Your task to perform on an android device: refresh tabs in the chrome app Image 0: 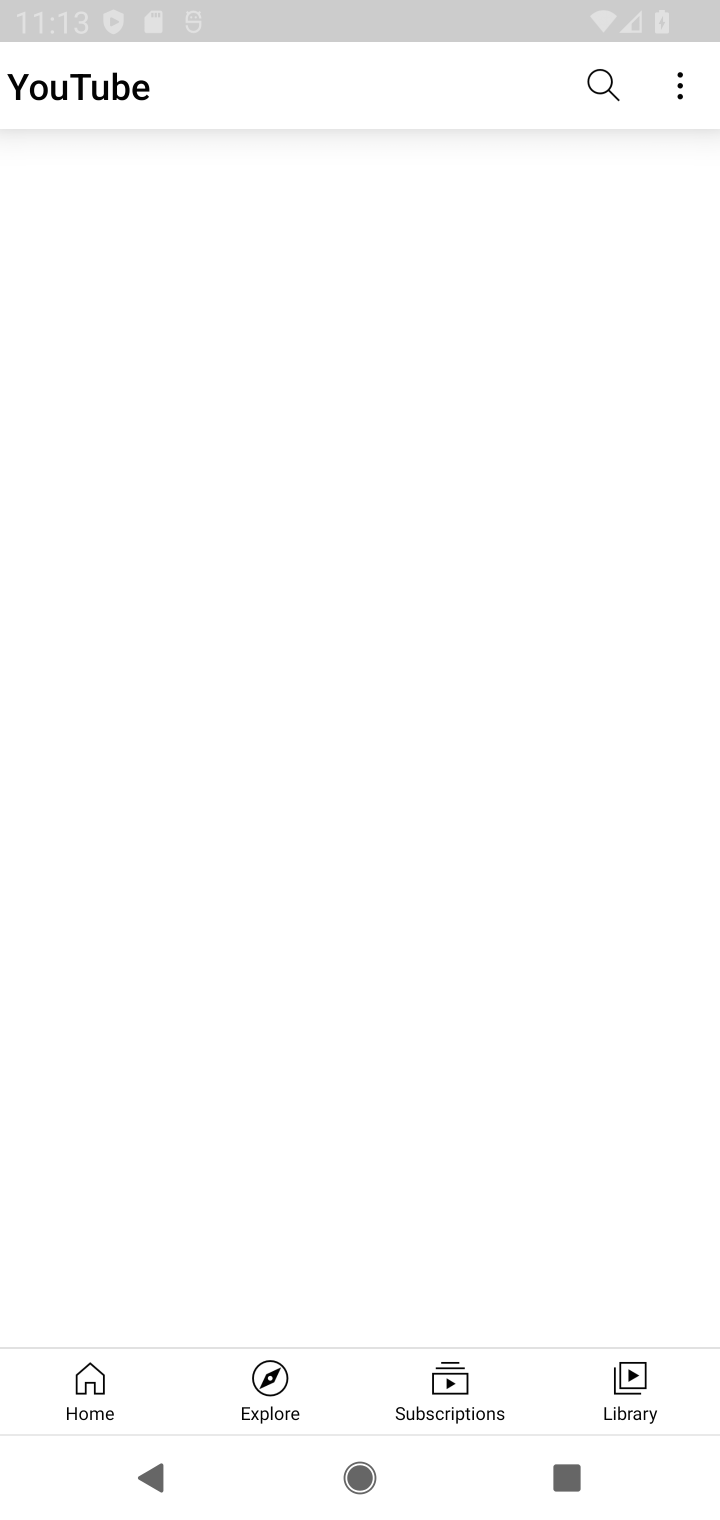
Step 0: press home button
Your task to perform on an android device: refresh tabs in the chrome app Image 1: 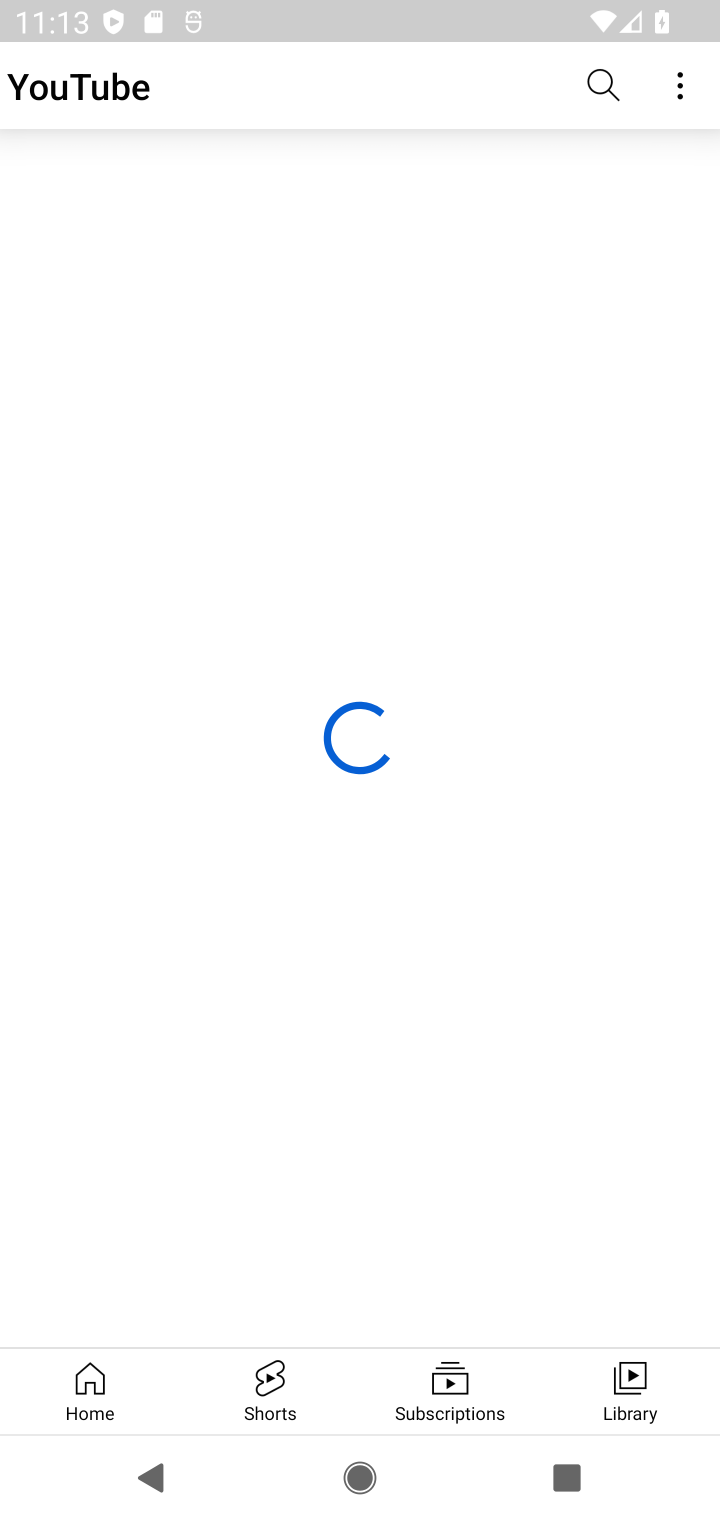
Step 1: press home button
Your task to perform on an android device: refresh tabs in the chrome app Image 2: 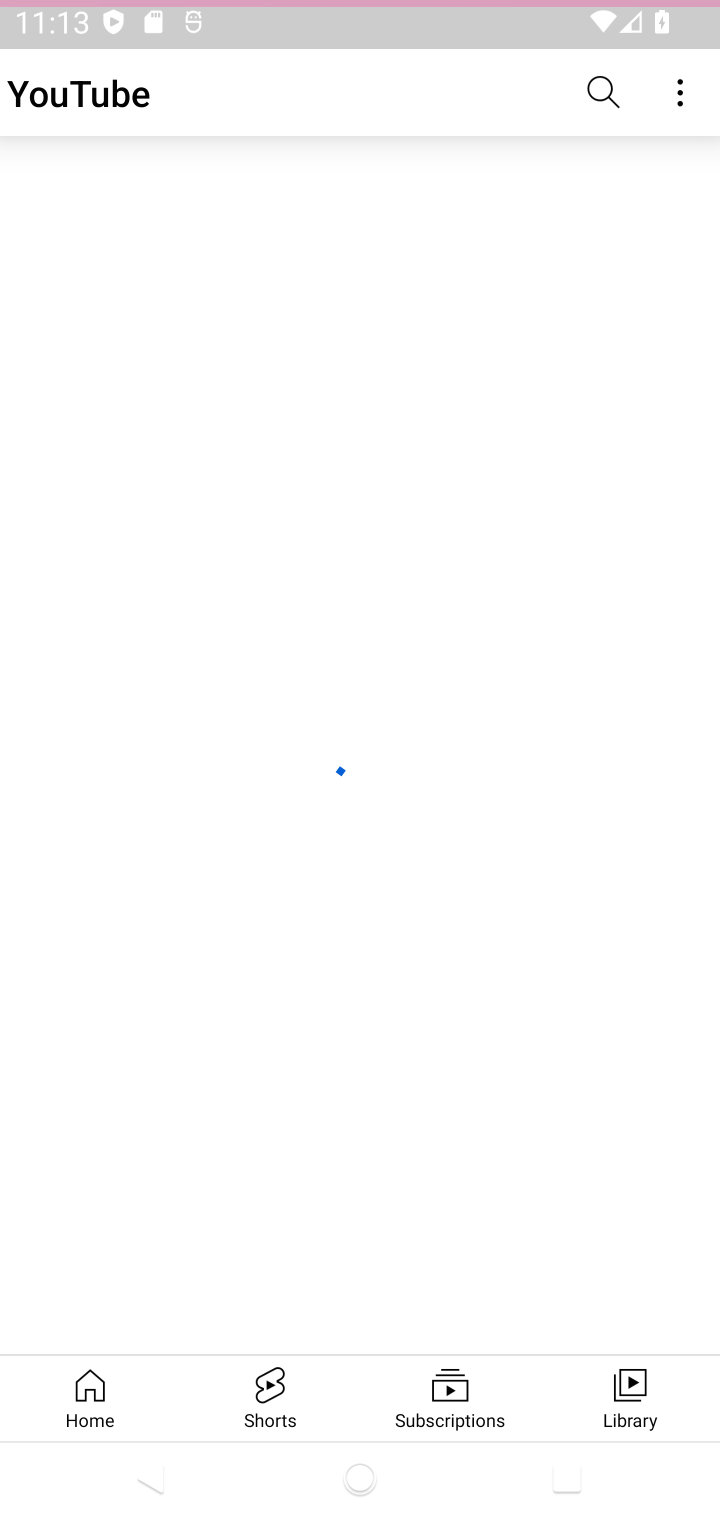
Step 2: press home button
Your task to perform on an android device: refresh tabs in the chrome app Image 3: 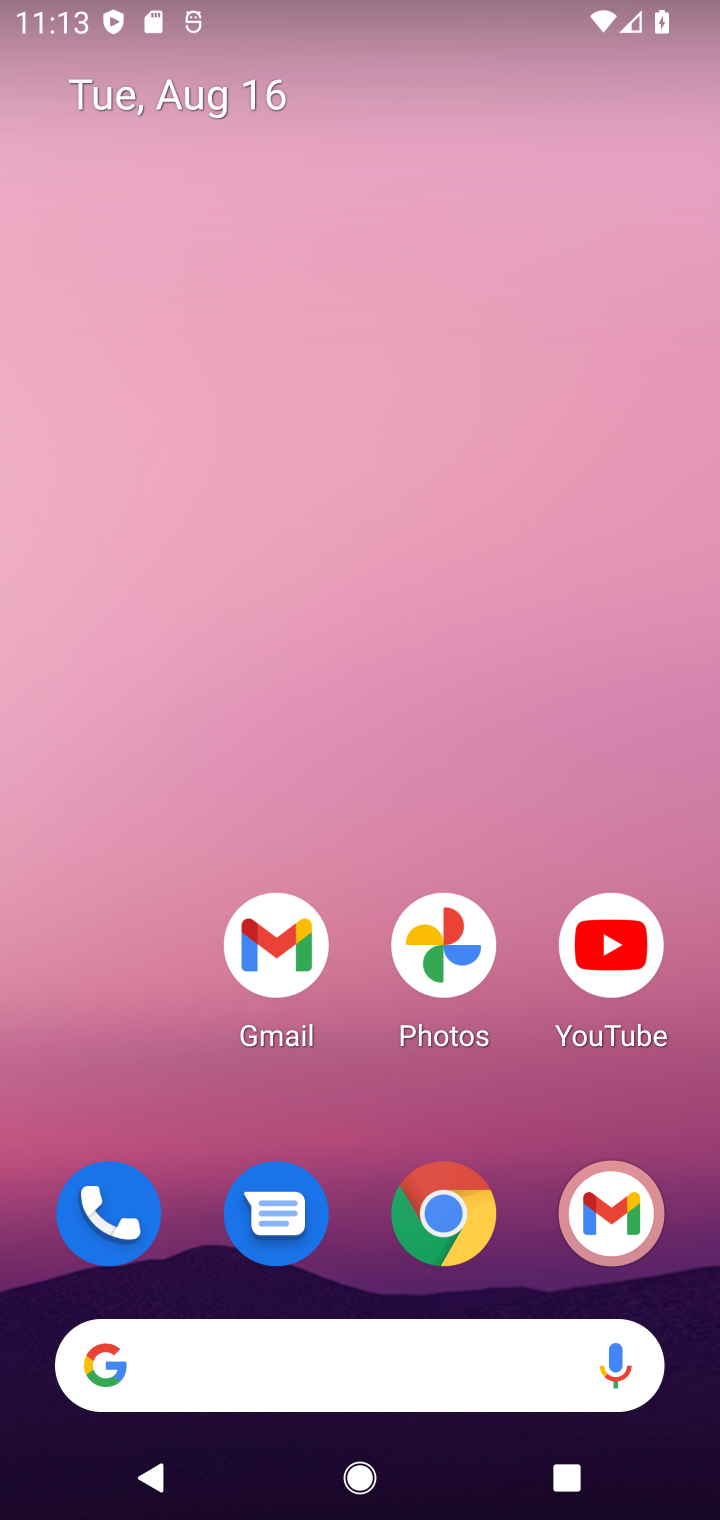
Step 3: drag from (336, 1075) to (532, 250)
Your task to perform on an android device: refresh tabs in the chrome app Image 4: 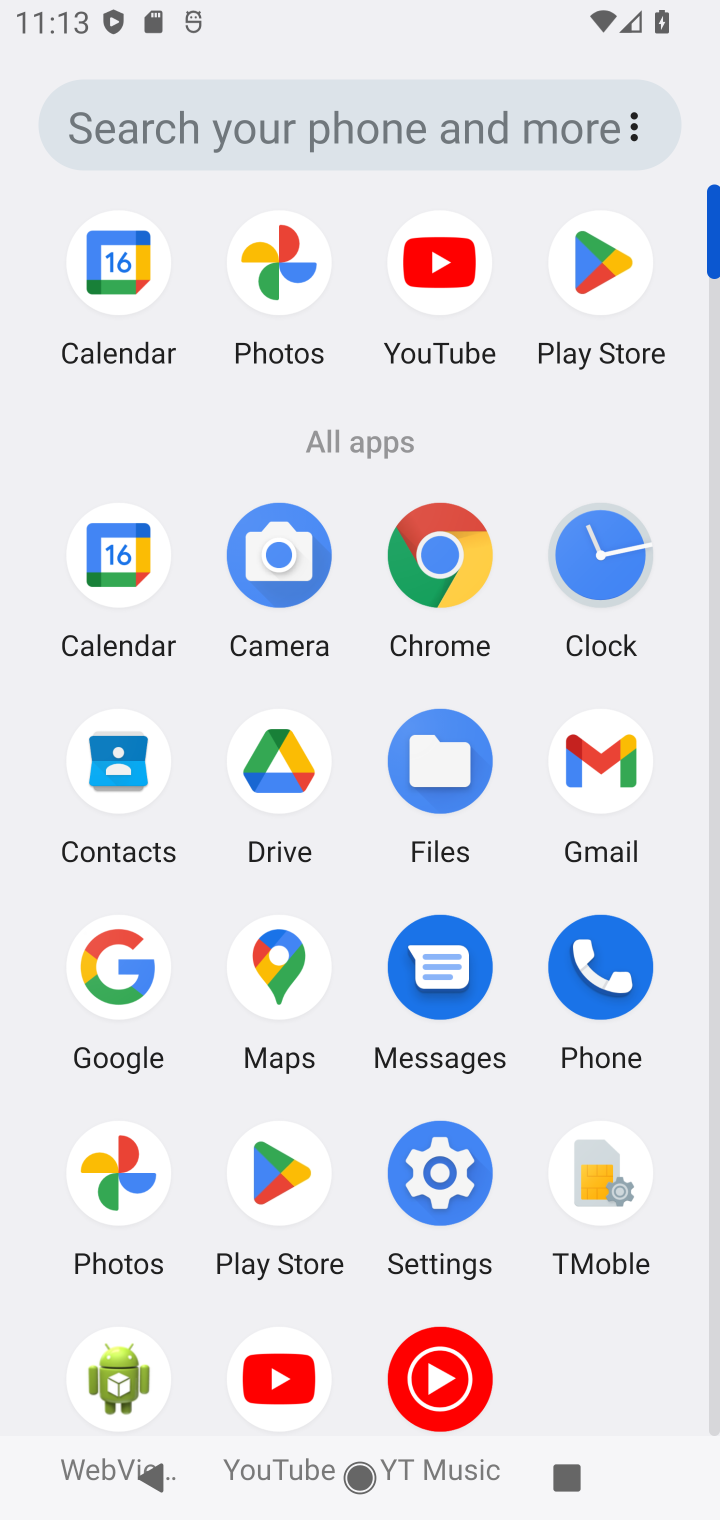
Step 4: click (431, 573)
Your task to perform on an android device: refresh tabs in the chrome app Image 5: 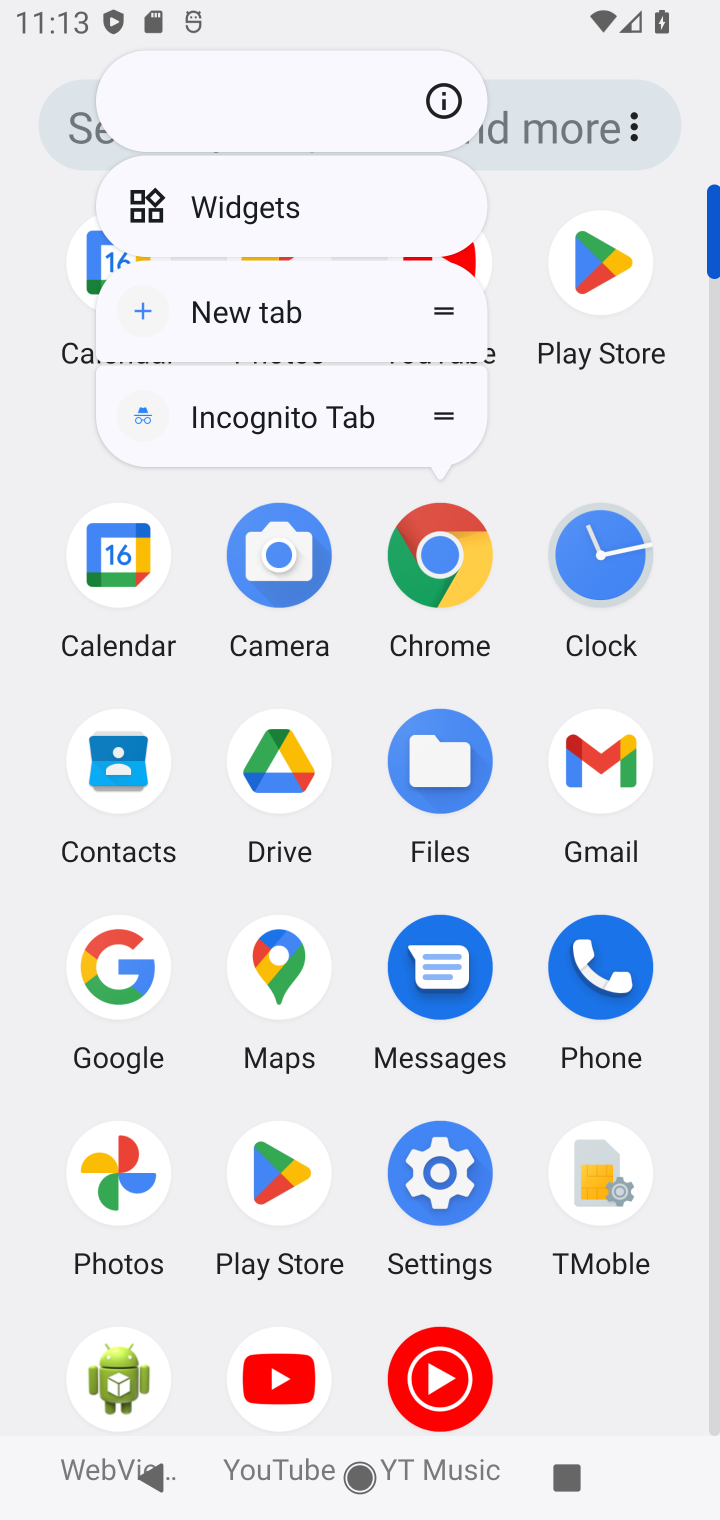
Step 5: click (431, 566)
Your task to perform on an android device: refresh tabs in the chrome app Image 6: 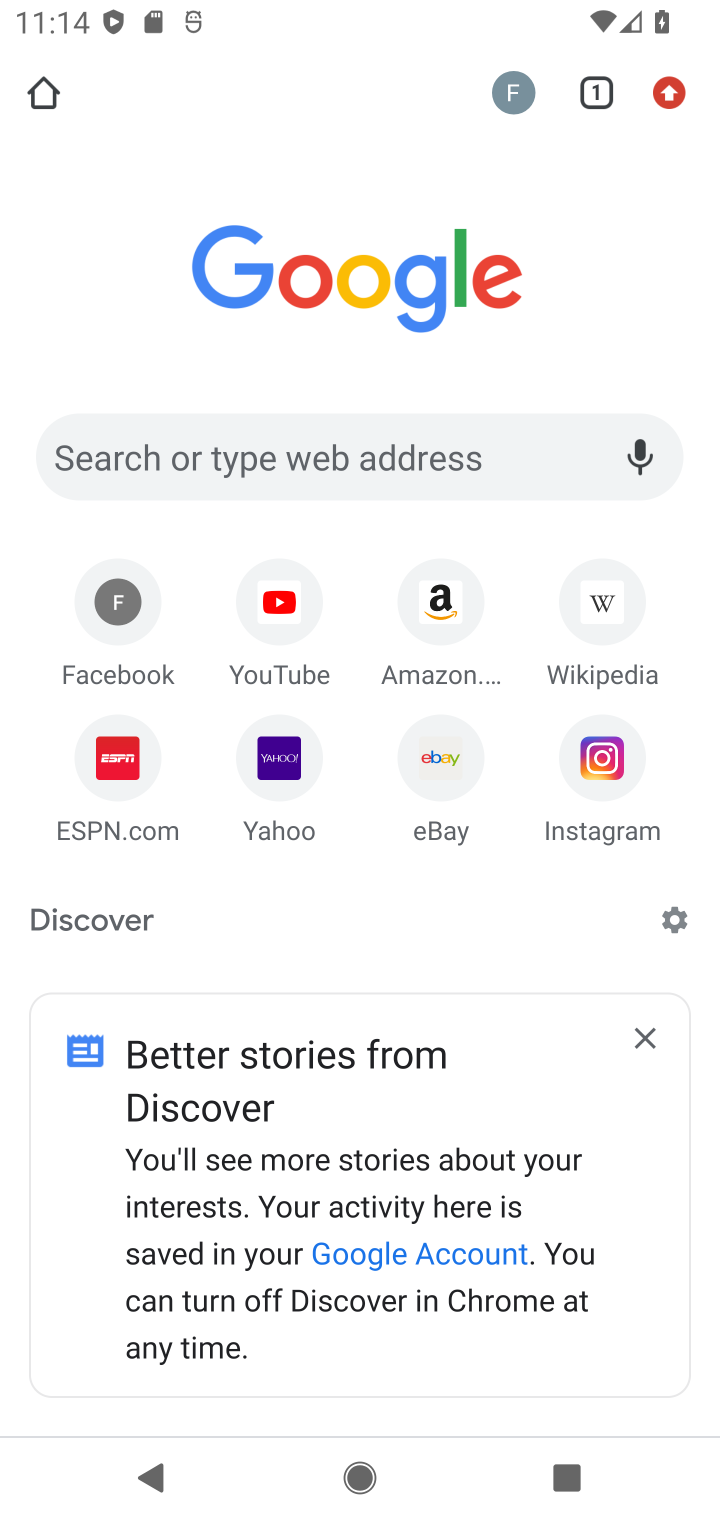
Step 6: click (696, 81)
Your task to perform on an android device: refresh tabs in the chrome app Image 7: 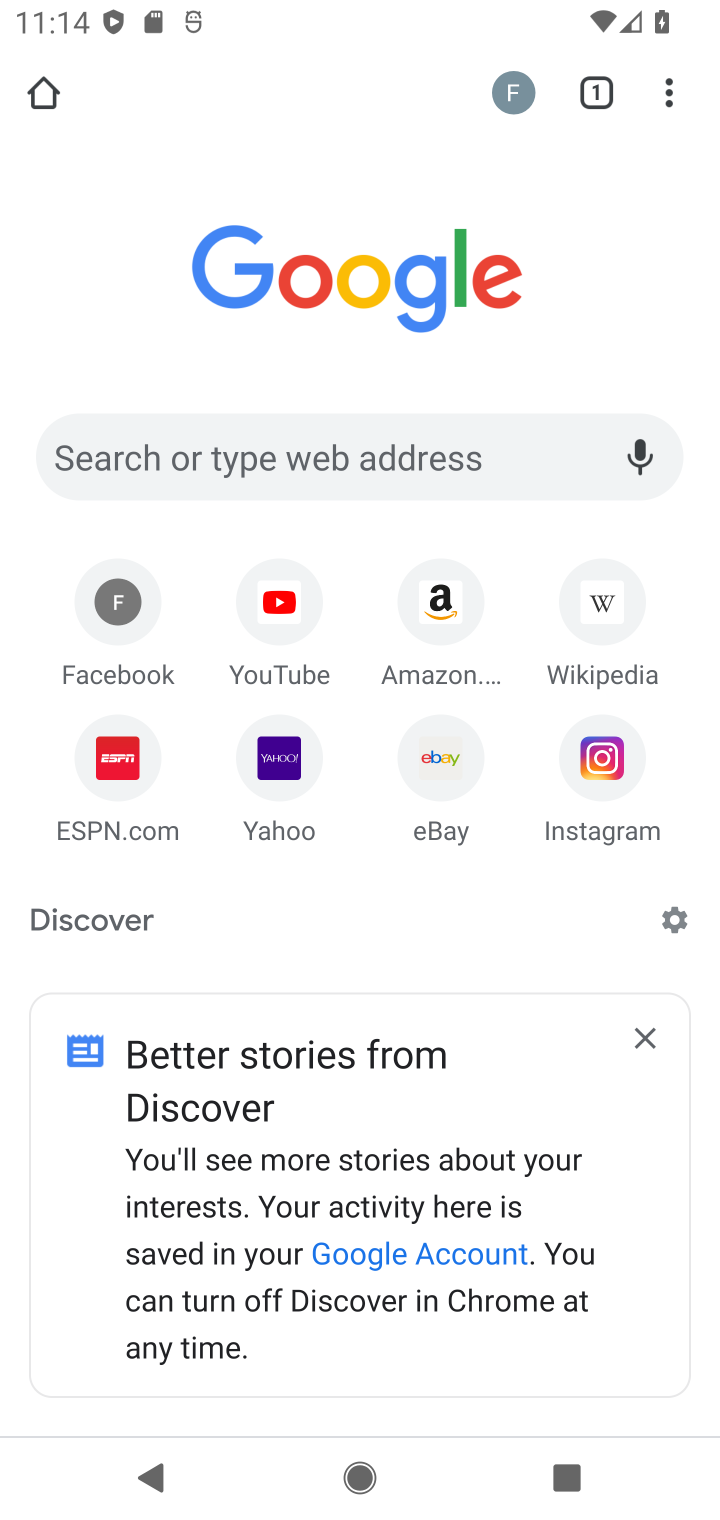
Step 7: click (672, 85)
Your task to perform on an android device: refresh tabs in the chrome app Image 8: 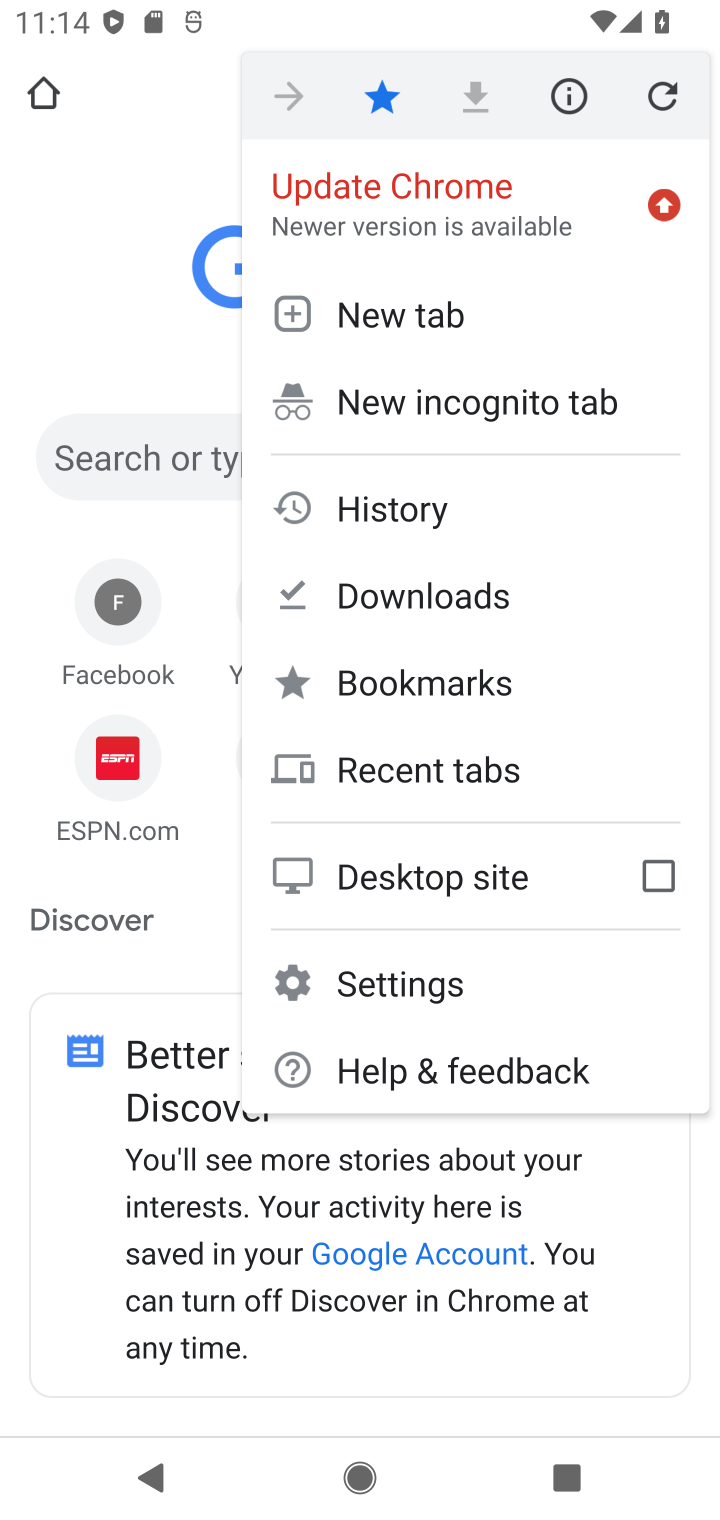
Step 8: click (672, 85)
Your task to perform on an android device: refresh tabs in the chrome app Image 9: 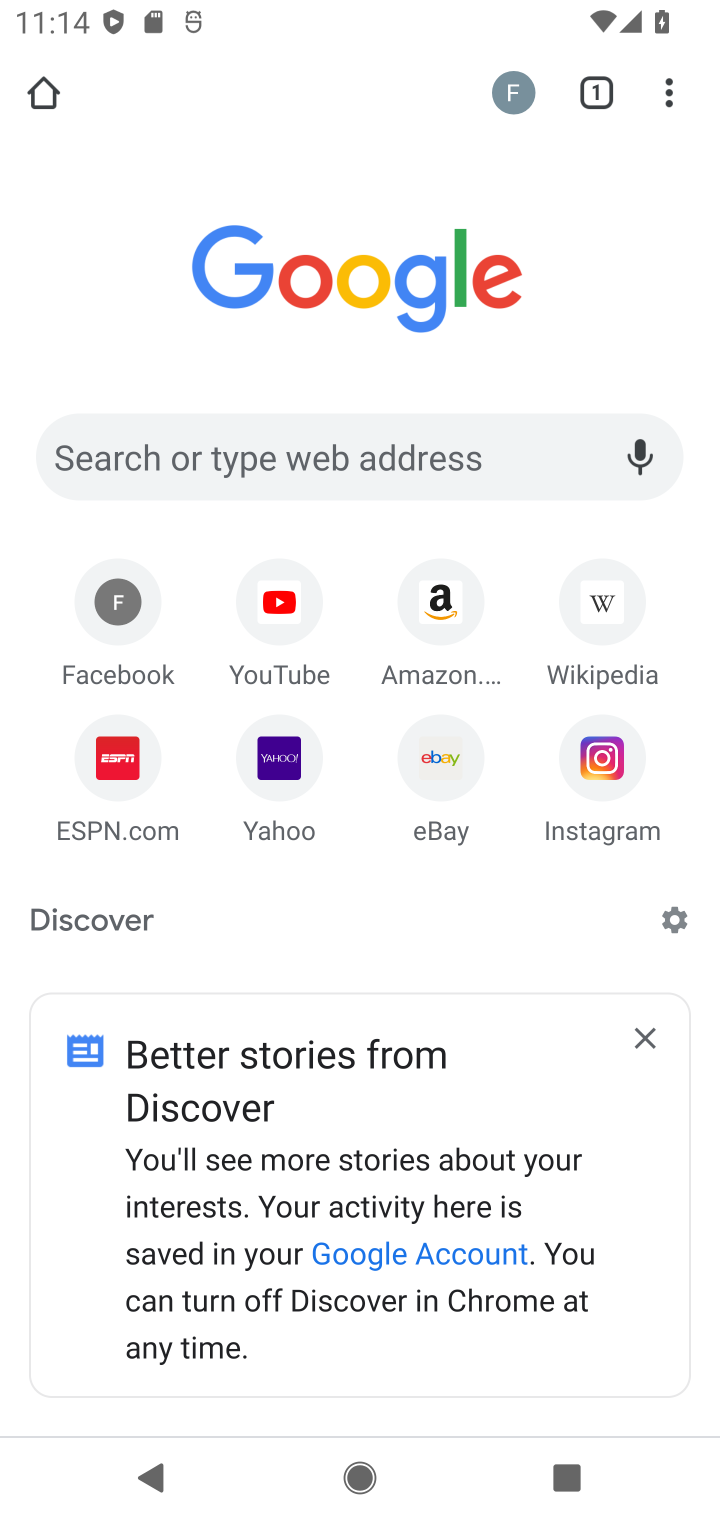
Step 9: task complete